Your task to perform on an android device: View the shopping cart on costco.com. Image 0: 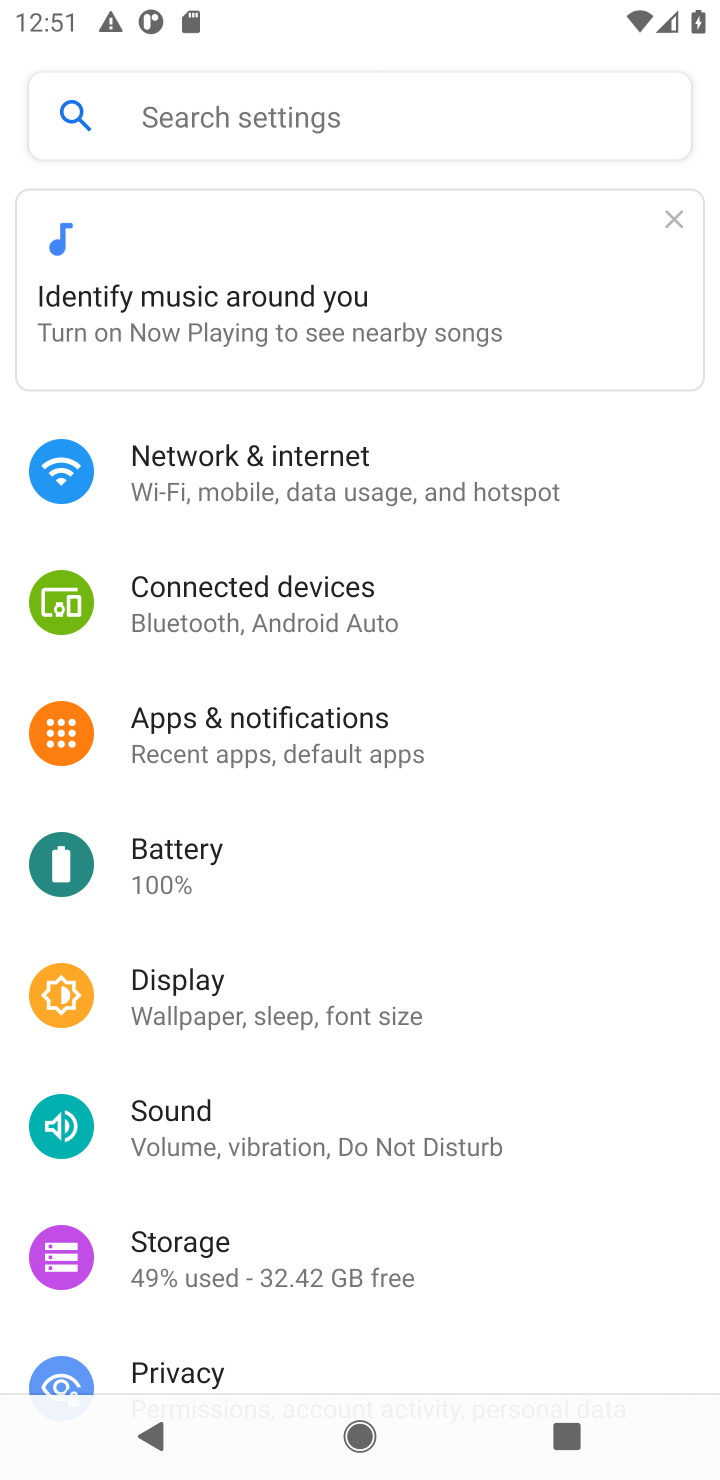
Step 0: press home button
Your task to perform on an android device: View the shopping cart on costco.com. Image 1: 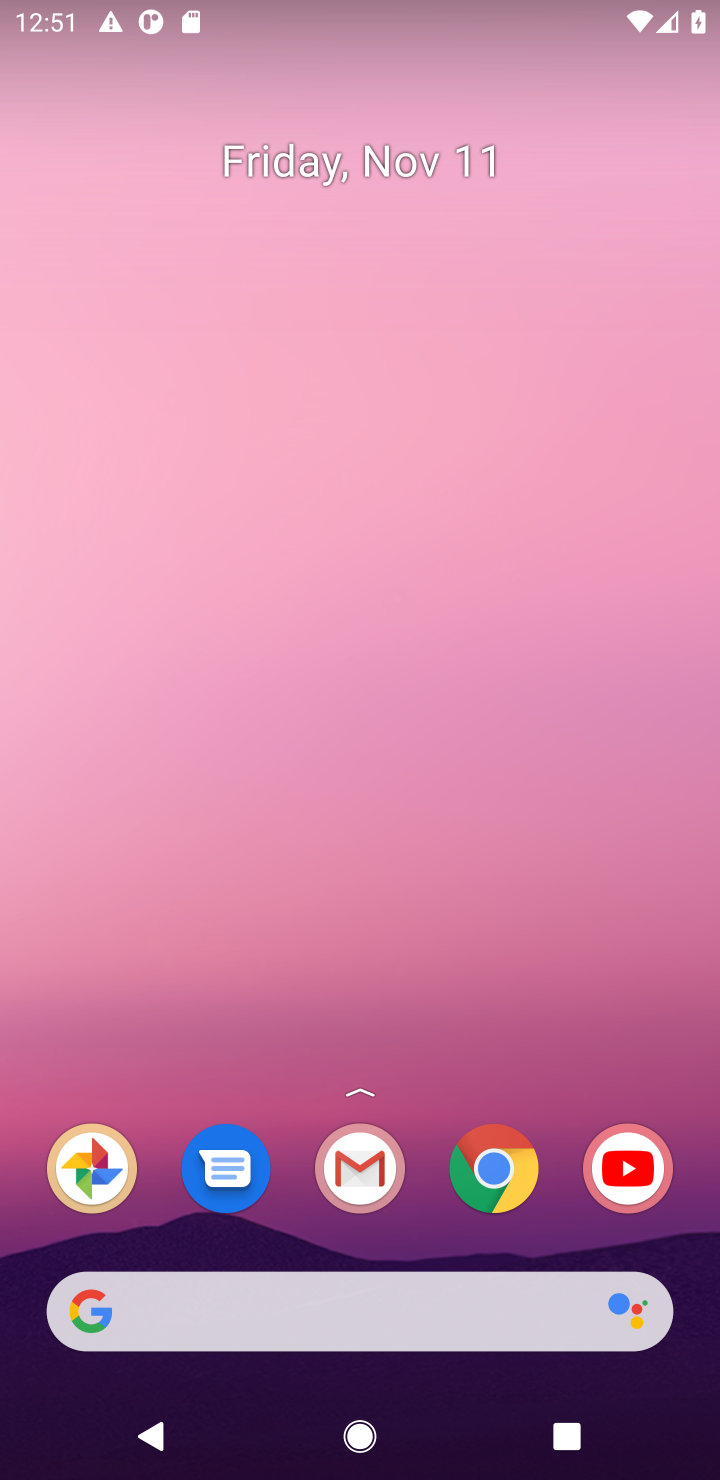
Step 1: click (476, 1186)
Your task to perform on an android device: View the shopping cart on costco.com. Image 2: 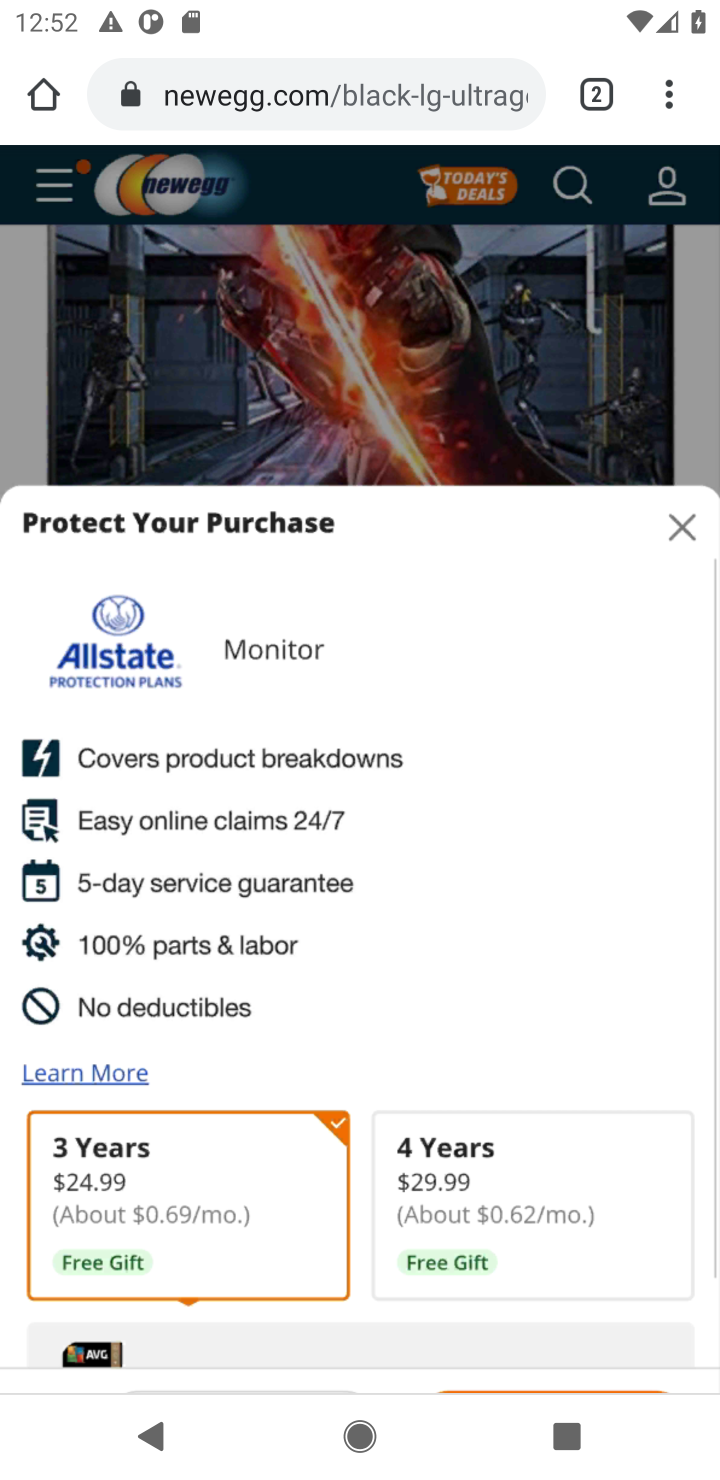
Step 2: click (292, 94)
Your task to perform on an android device: View the shopping cart on costco.com. Image 3: 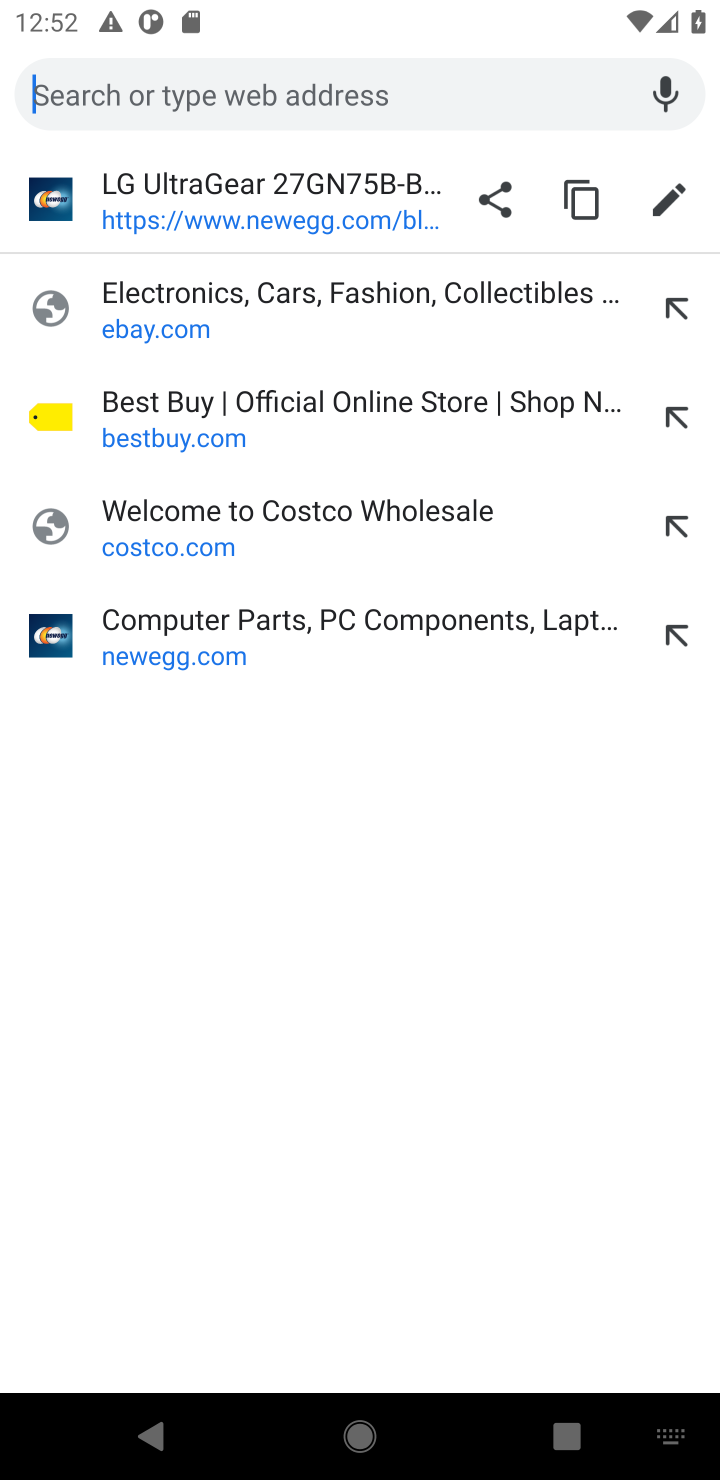
Step 3: click (136, 524)
Your task to perform on an android device: View the shopping cart on costco.com. Image 4: 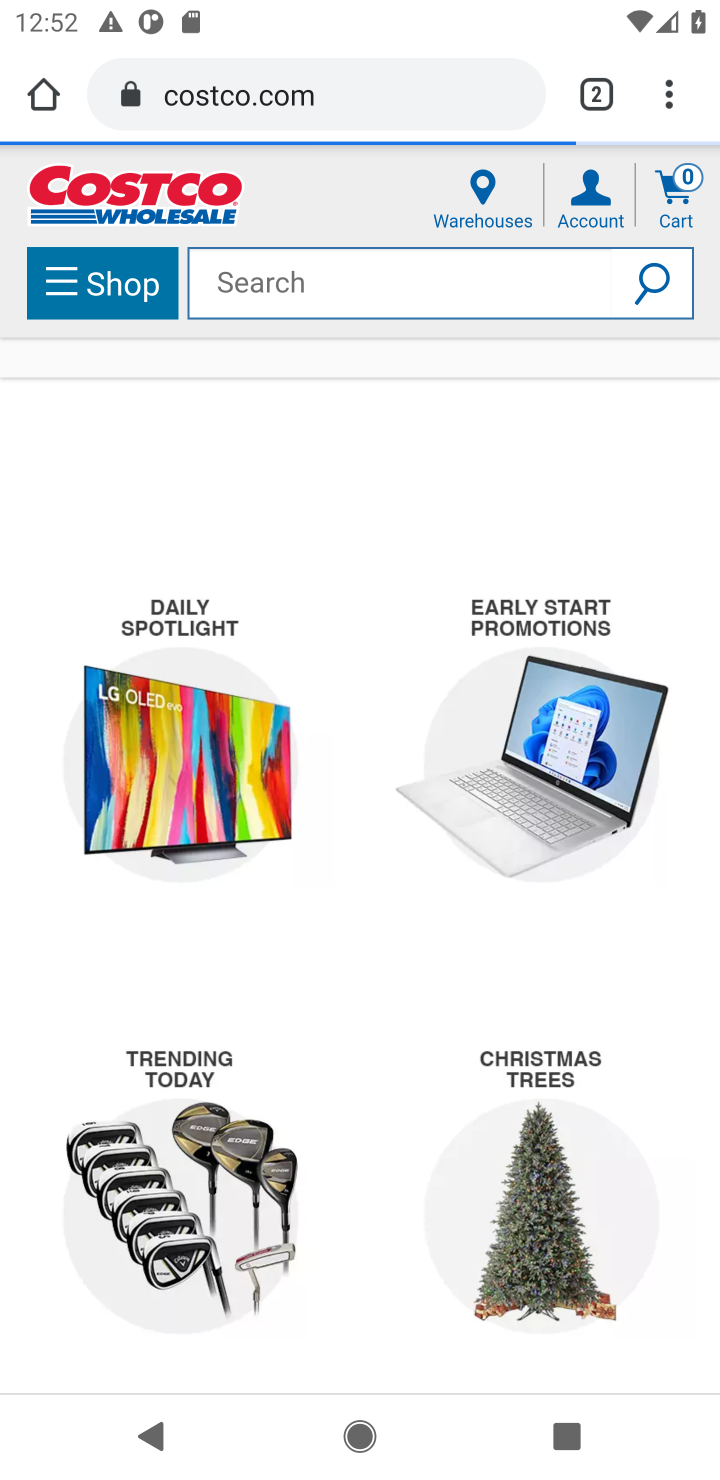
Step 4: click (685, 211)
Your task to perform on an android device: View the shopping cart on costco.com. Image 5: 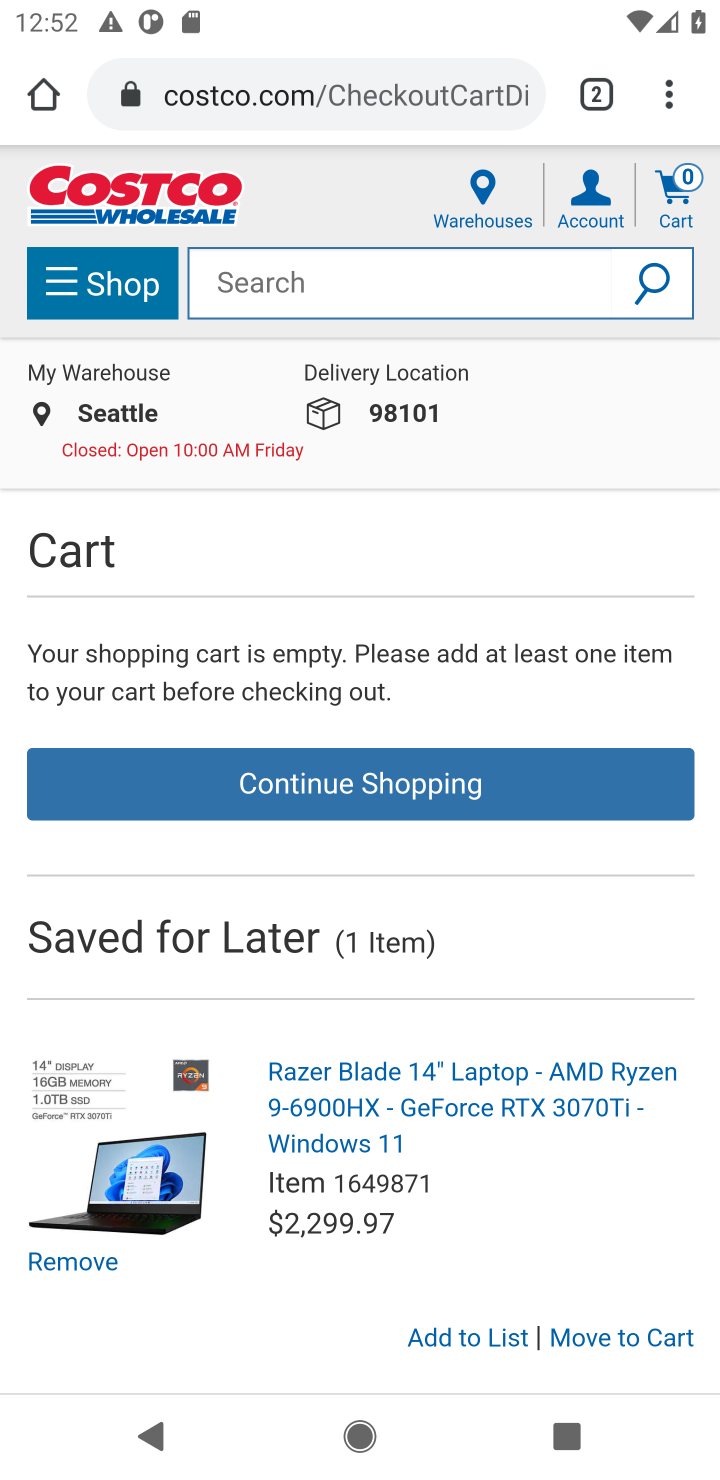
Step 5: task complete